Your task to perform on an android device: turn off sleep mode Image 0: 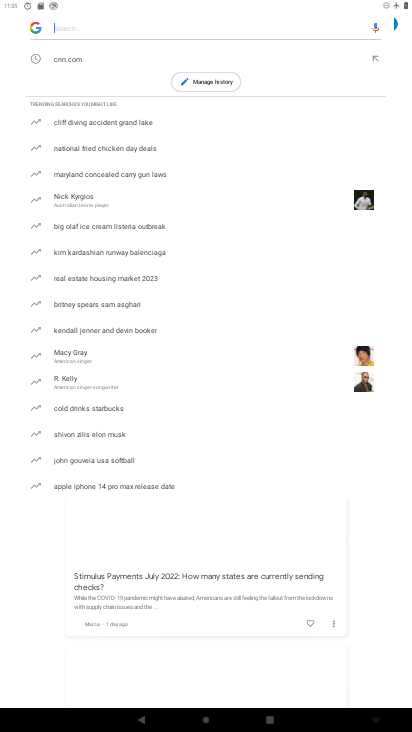
Step 0: press back button
Your task to perform on an android device: turn off sleep mode Image 1: 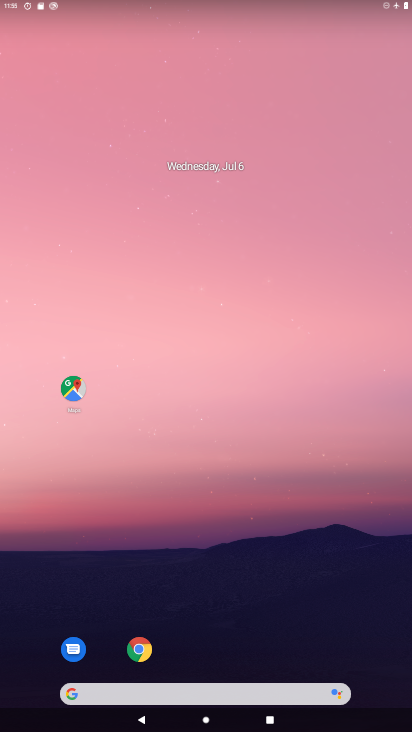
Step 1: drag from (375, 645) to (279, 130)
Your task to perform on an android device: turn off sleep mode Image 2: 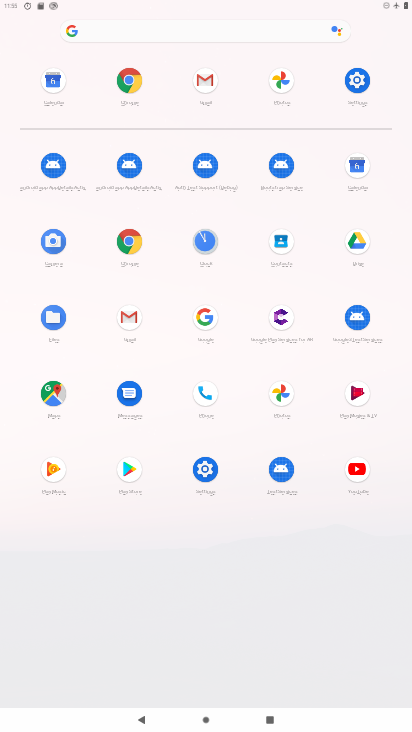
Step 2: click (356, 73)
Your task to perform on an android device: turn off sleep mode Image 3: 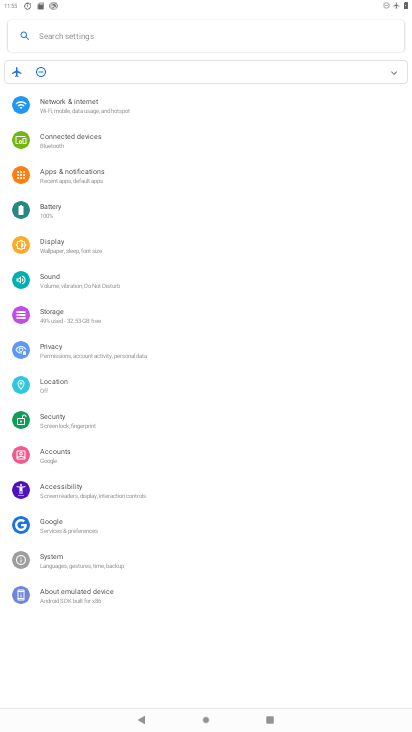
Step 3: click (63, 246)
Your task to perform on an android device: turn off sleep mode Image 4: 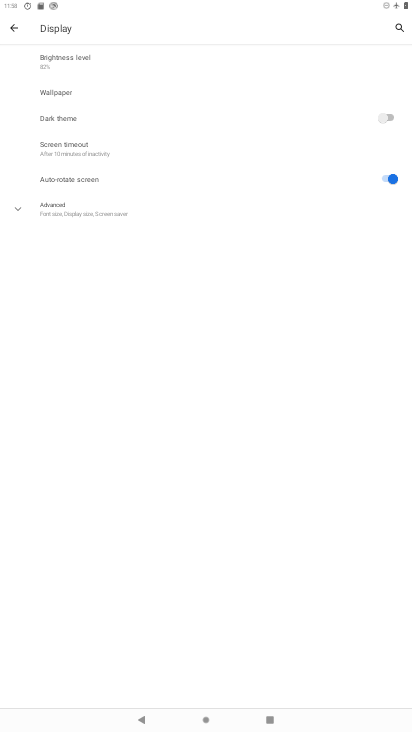
Step 4: task complete